Your task to perform on an android device: Open Android settings Image 0: 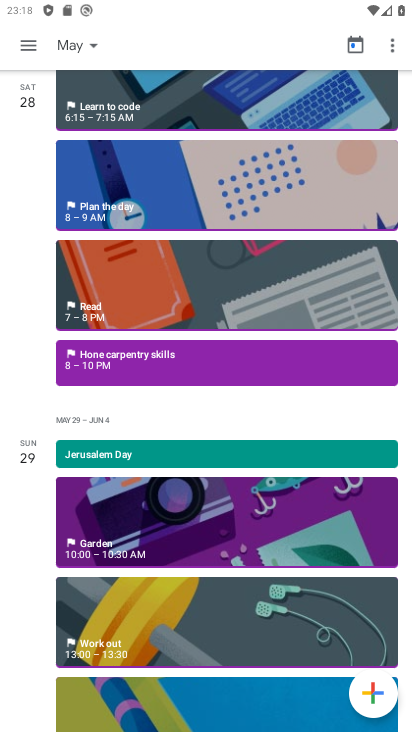
Step 0: press home button
Your task to perform on an android device: Open Android settings Image 1: 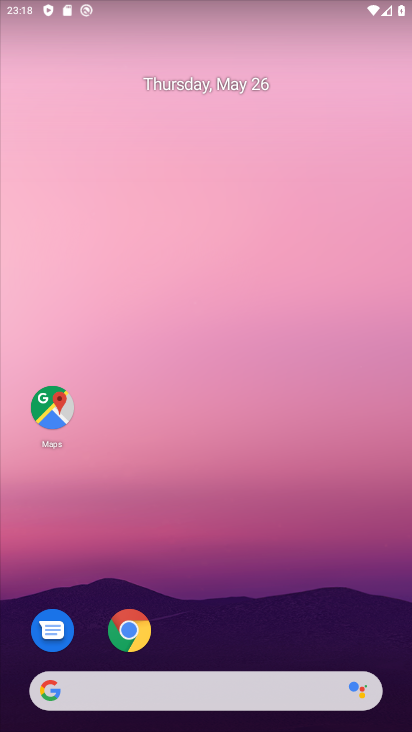
Step 1: drag from (229, 639) to (270, 297)
Your task to perform on an android device: Open Android settings Image 2: 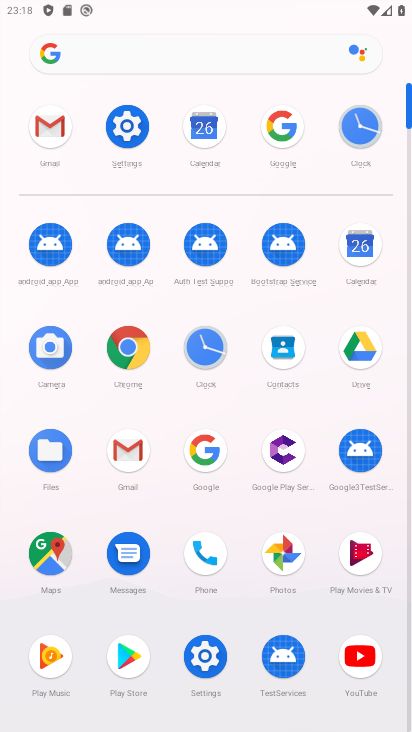
Step 2: click (128, 126)
Your task to perform on an android device: Open Android settings Image 3: 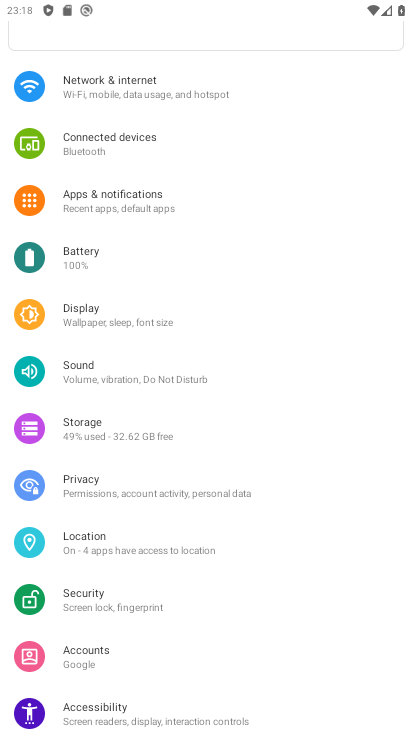
Step 3: task complete